Your task to perform on an android device: uninstall "Microsoft Authenticator" Image 0: 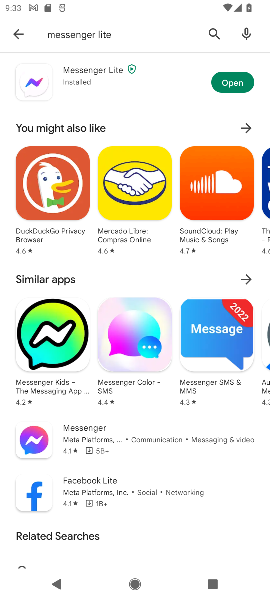
Step 0: click (14, 28)
Your task to perform on an android device: uninstall "Microsoft Authenticator" Image 1: 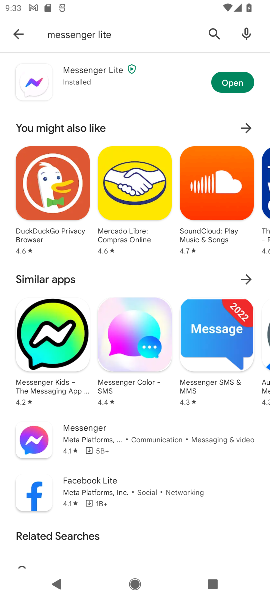
Step 1: click (15, 28)
Your task to perform on an android device: uninstall "Microsoft Authenticator" Image 2: 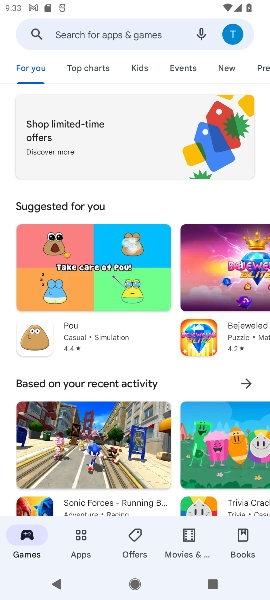
Step 2: click (60, 28)
Your task to perform on an android device: uninstall "Microsoft Authenticator" Image 3: 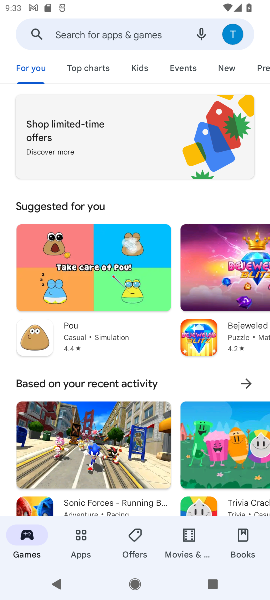
Step 3: click (52, 26)
Your task to perform on an android device: uninstall "Microsoft Authenticator" Image 4: 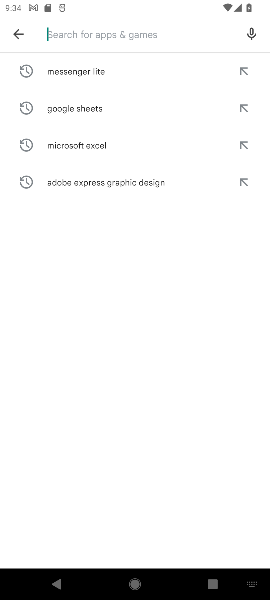
Step 4: type "microsoft authentication"
Your task to perform on an android device: uninstall "Microsoft Authenticator" Image 5: 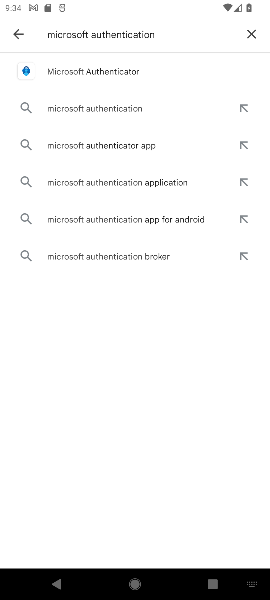
Step 5: click (98, 85)
Your task to perform on an android device: uninstall "Microsoft Authenticator" Image 6: 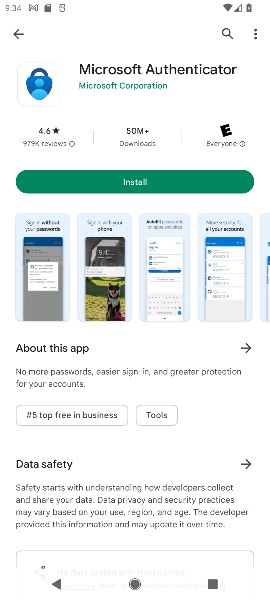
Step 6: click (153, 181)
Your task to perform on an android device: uninstall "Microsoft Authenticator" Image 7: 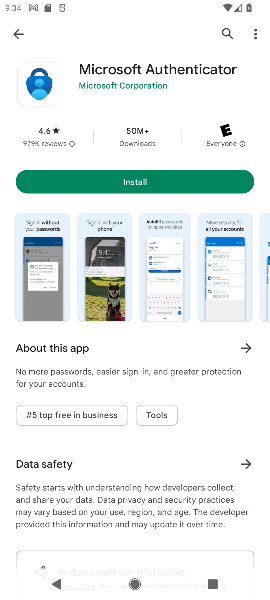
Step 7: click (159, 186)
Your task to perform on an android device: uninstall "Microsoft Authenticator" Image 8: 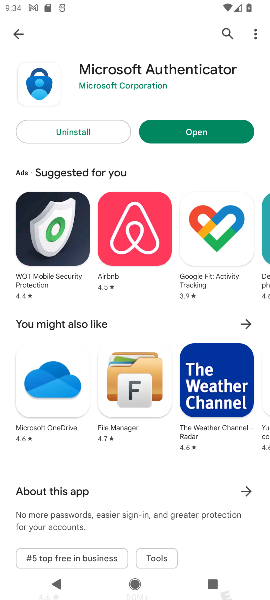
Step 8: click (228, 124)
Your task to perform on an android device: uninstall "Microsoft Authenticator" Image 9: 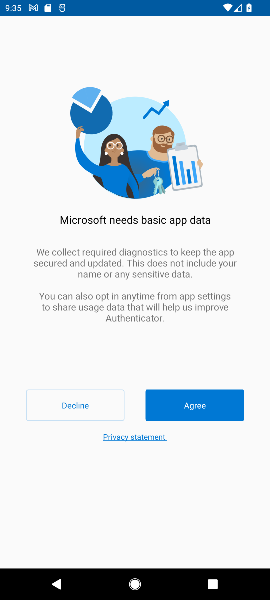
Step 9: click (204, 398)
Your task to perform on an android device: uninstall "Microsoft Authenticator" Image 10: 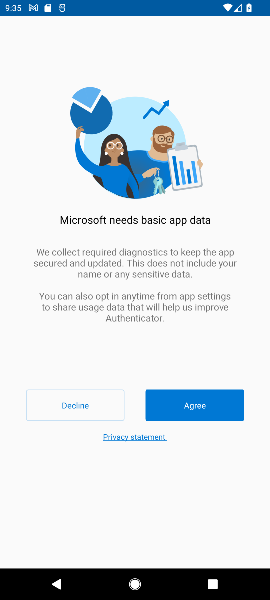
Step 10: click (204, 398)
Your task to perform on an android device: uninstall "Microsoft Authenticator" Image 11: 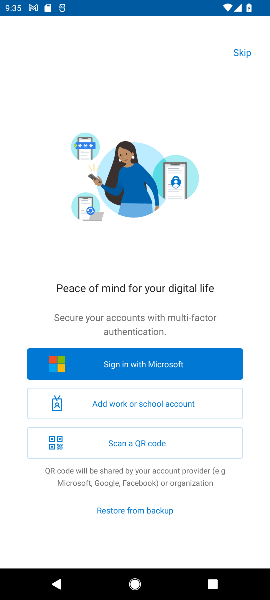
Step 11: task complete